Your task to perform on an android device: change text size in settings app Image 0: 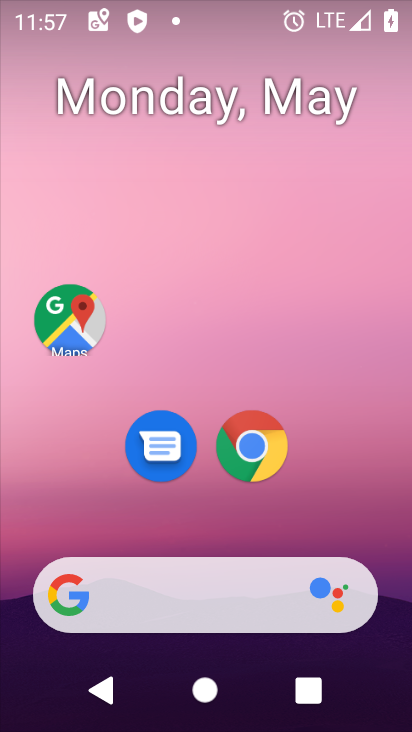
Step 0: drag from (328, 503) to (298, 30)
Your task to perform on an android device: change text size in settings app Image 1: 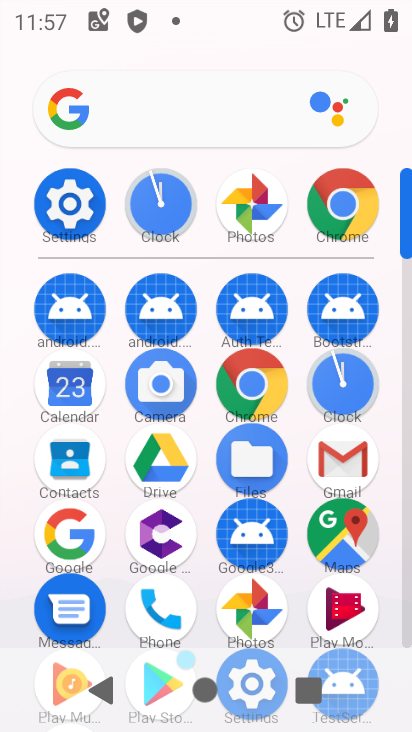
Step 1: click (70, 213)
Your task to perform on an android device: change text size in settings app Image 2: 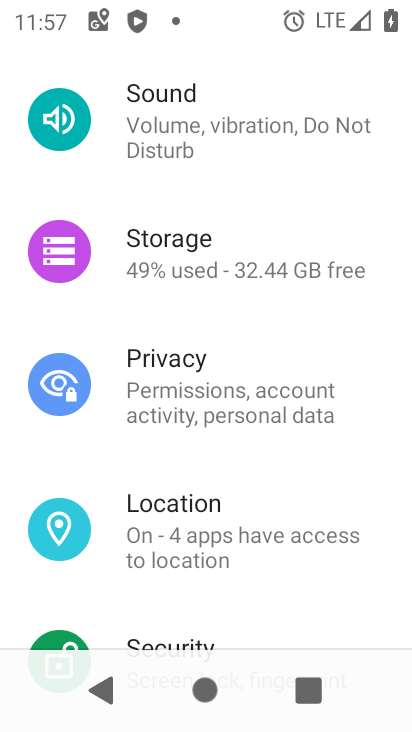
Step 2: drag from (240, 321) to (268, 653)
Your task to perform on an android device: change text size in settings app Image 3: 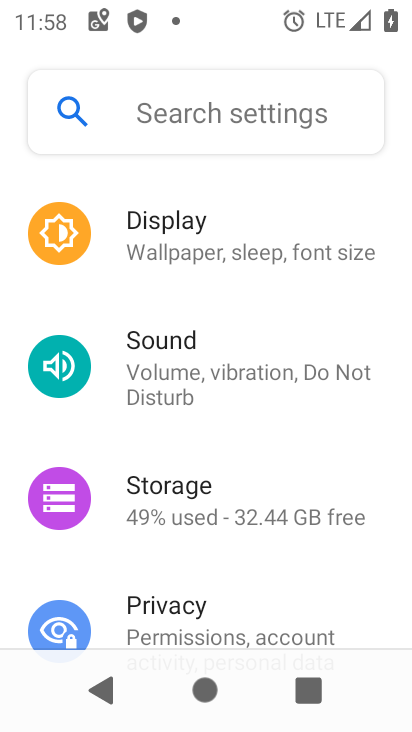
Step 3: click (175, 213)
Your task to perform on an android device: change text size in settings app Image 4: 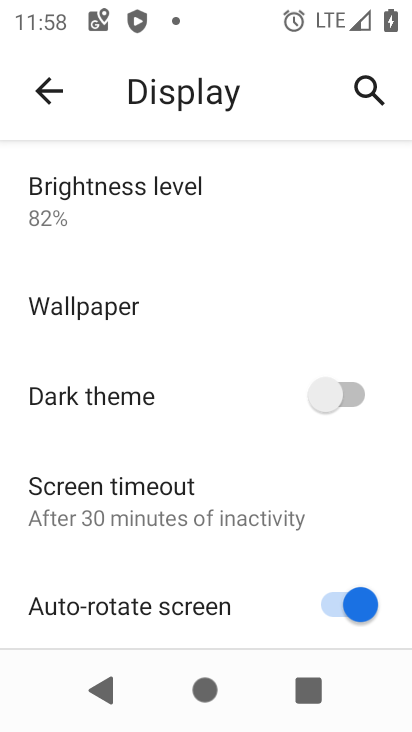
Step 4: drag from (205, 539) to (184, 237)
Your task to perform on an android device: change text size in settings app Image 5: 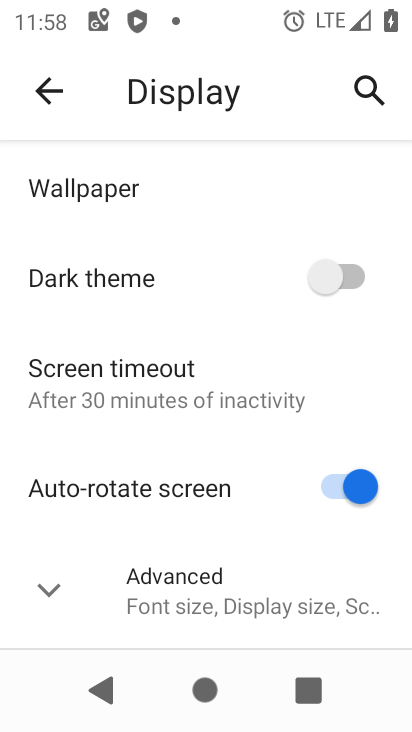
Step 5: click (119, 577)
Your task to perform on an android device: change text size in settings app Image 6: 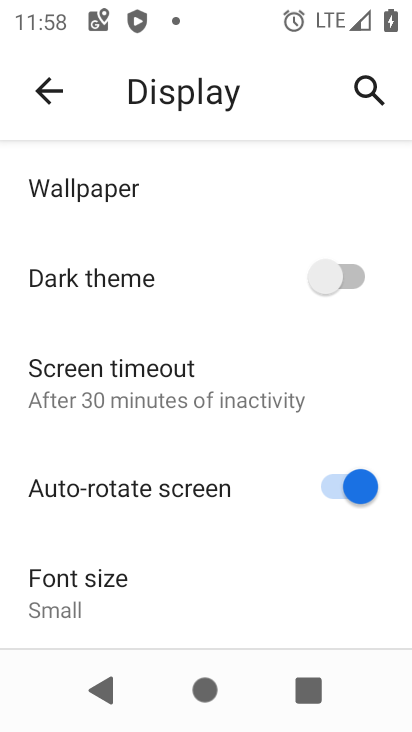
Step 6: click (85, 585)
Your task to perform on an android device: change text size in settings app Image 7: 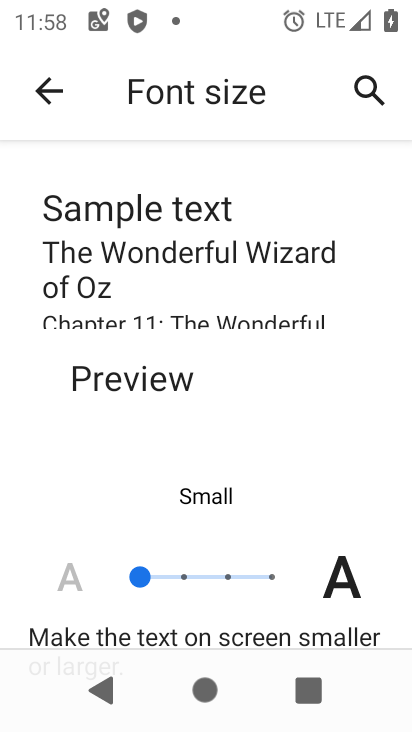
Step 7: click (186, 577)
Your task to perform on an android device: change text size in settings app Image 8: 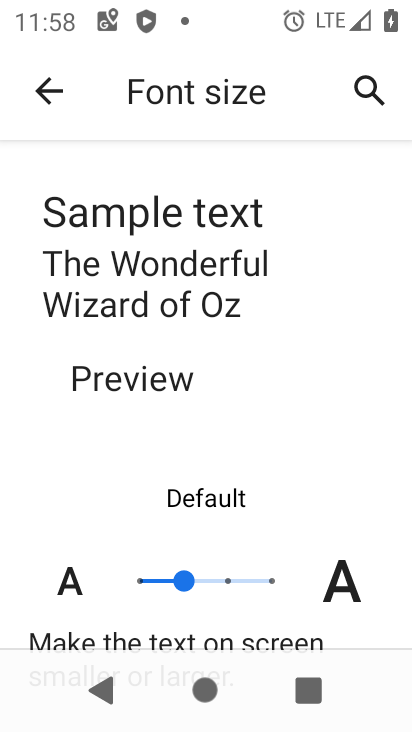
Step 8: task complete